Your task to perform on an android device: change the clock display to digital Image 0: 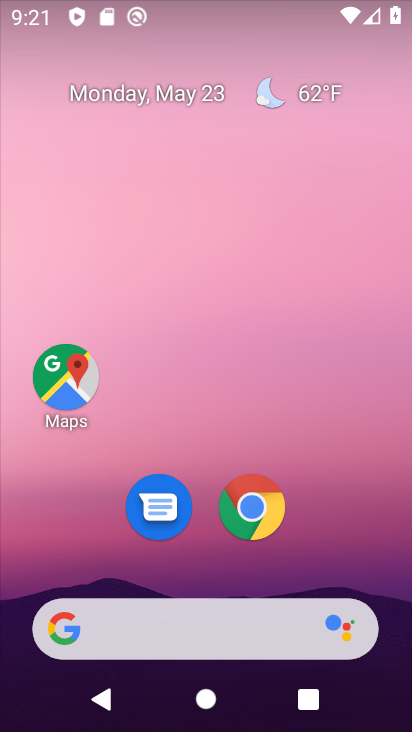
Step 0: drag from (314, 554) to (410, 0)
Your task to perform on an android device: change the clock display to digital Image 1: 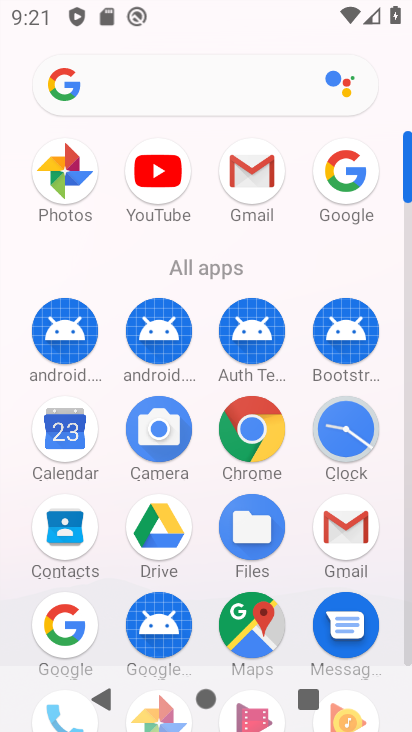
Step 1: click (348, 428)
Your task to perform on an android device: change the clock display to digital Image 2: 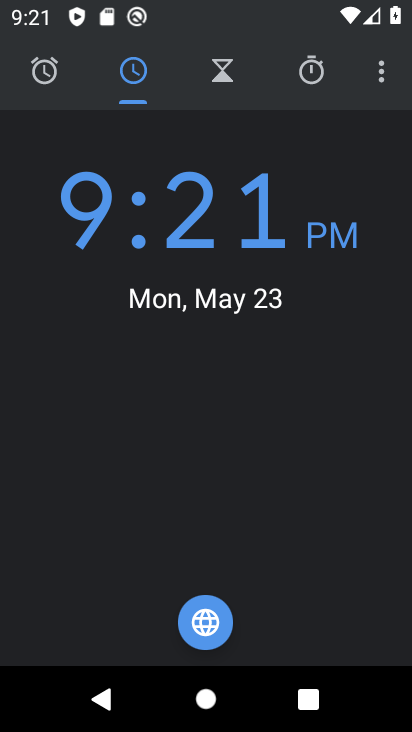
Step 2: click (382, 73)
Your task to perform on an android device: change the clock display to digital Image 3: 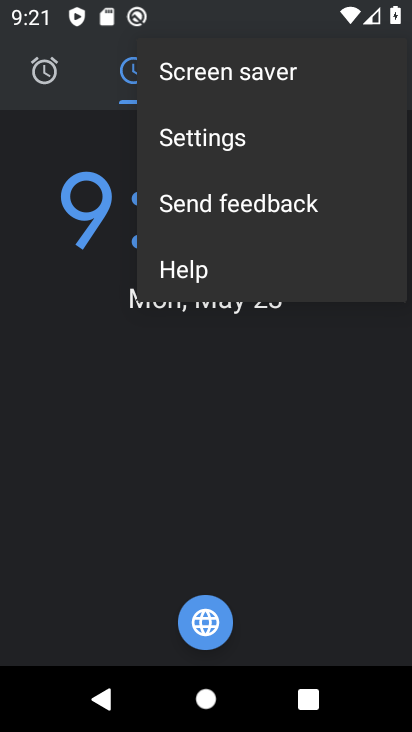
Step 3: click (235, 141)
Your task to perform on an android device: change the clock display to digital Image 4: 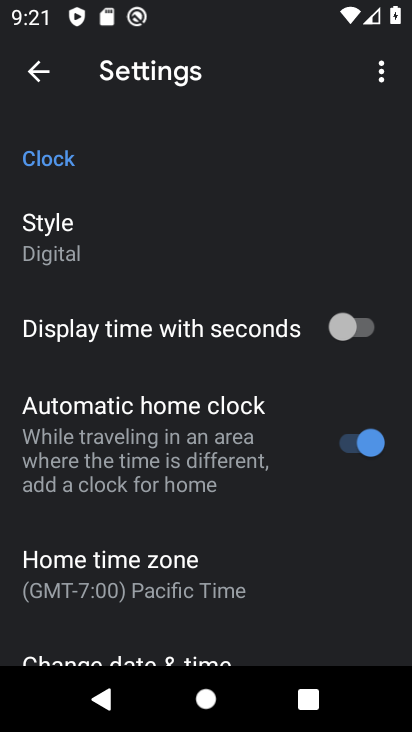
Step 4: click (87, 252)
Your task to perform on an android device: change the clock display to digital Image 5: 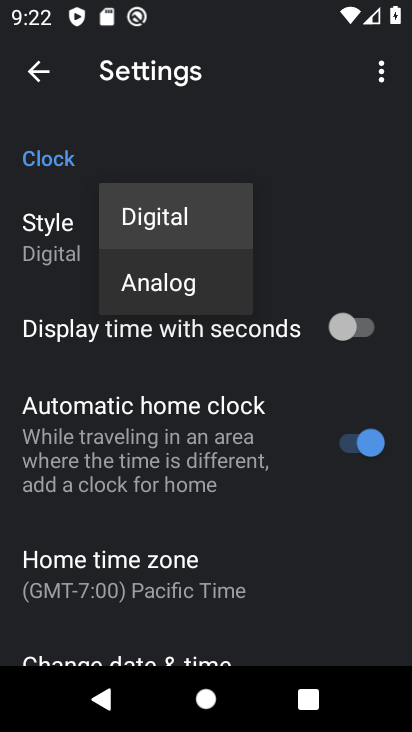
Step 5: click (130, 216)
Your task to perform on an android device: change the clock display to digital Image 6: 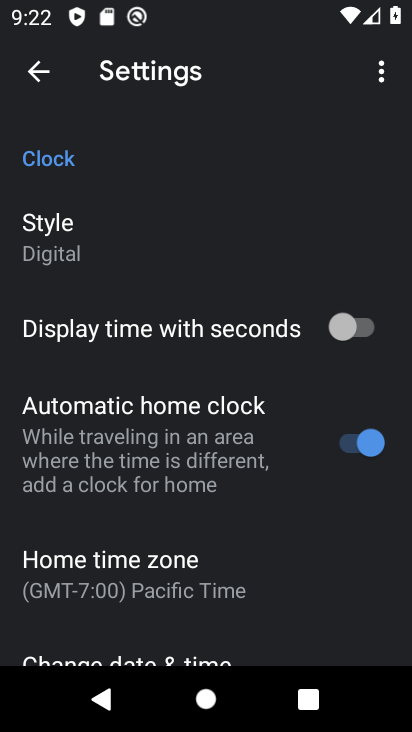
Step 6: task complete